Your task to perform on an android device: delete browsing data in the chrome app Image 0: 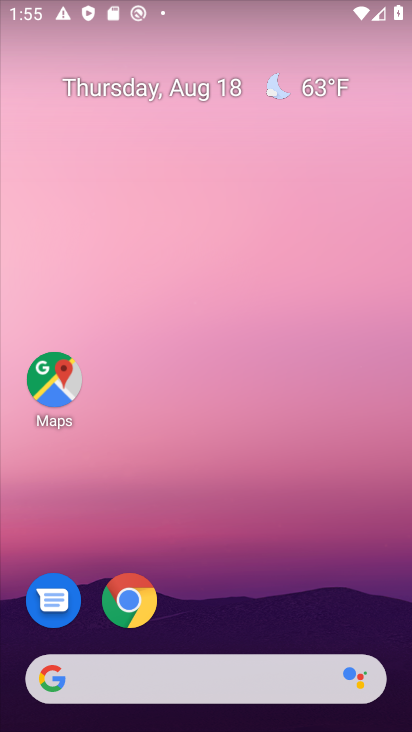
Step 0: click (130, 600)
Your task to perform on an android device: delete browsing data in the chrome app Image 1: 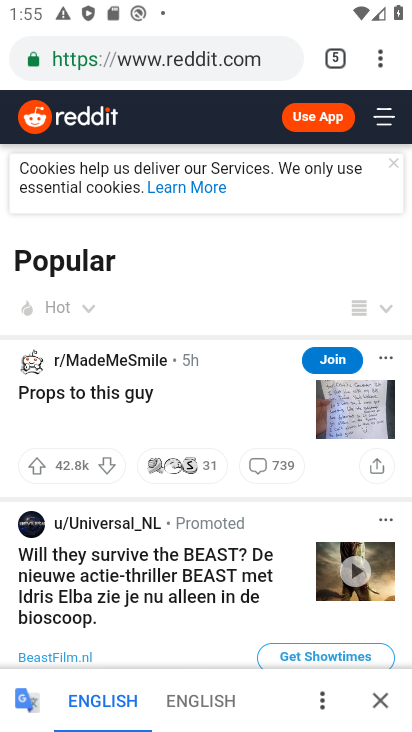
Step 1: click (377, 56)
Your task to perform on an android device: delete browsing data in the chrome app Image 2: 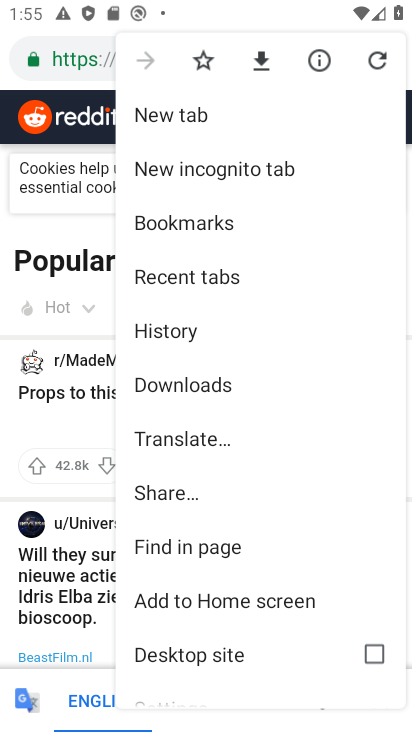
Step 2: click (166, 323)
Your task to perform on an android device: delete browsing data in the chrome app Image 3: 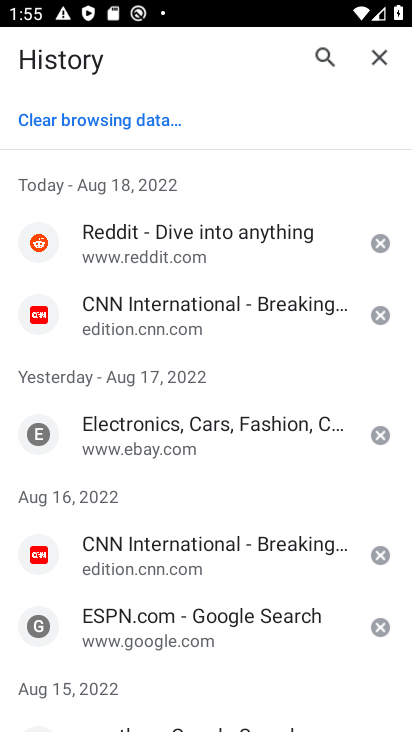
Step 3: click (114, 116)
Your task to perform on an android device: delete browsing data in the chrome app Image 4: 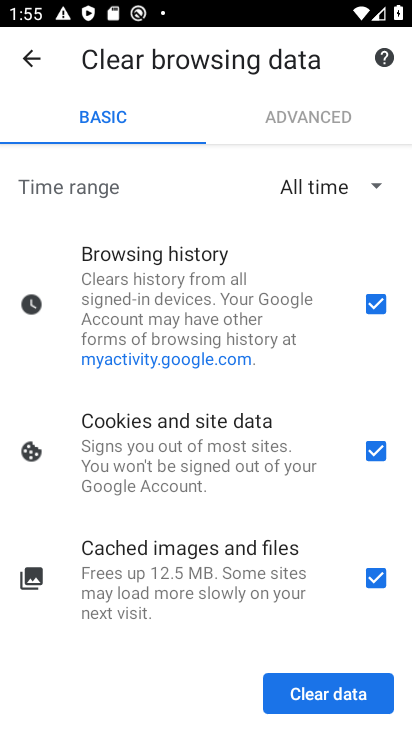
Step 4: click (323, 686)
Your task to perform on an android device: delete browsing data in the chrome app Image 5: 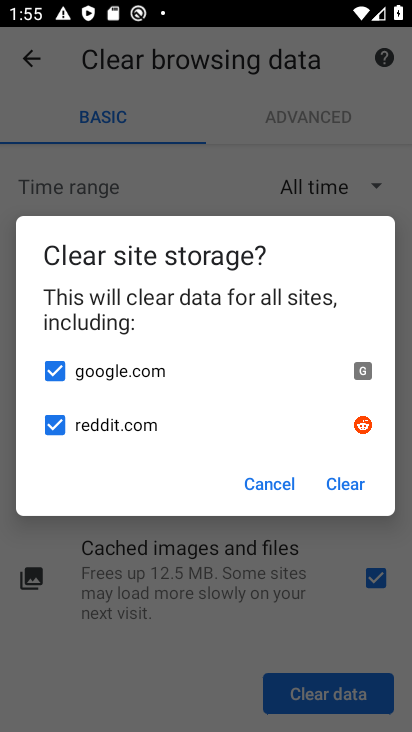
Step 5: click (342, 484)
Your task to perform on an android device: delete browsing data in the chrome app Image 6: 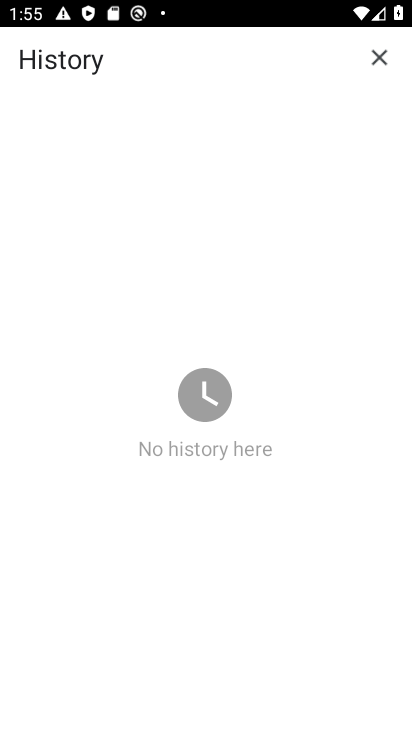
Step 6: task complete